Your task to perform on an android device: open app "Firefox Browser" (install if not already installed) and enter user name: "hashed@outlook.com" and password: "congestive" Image 0: 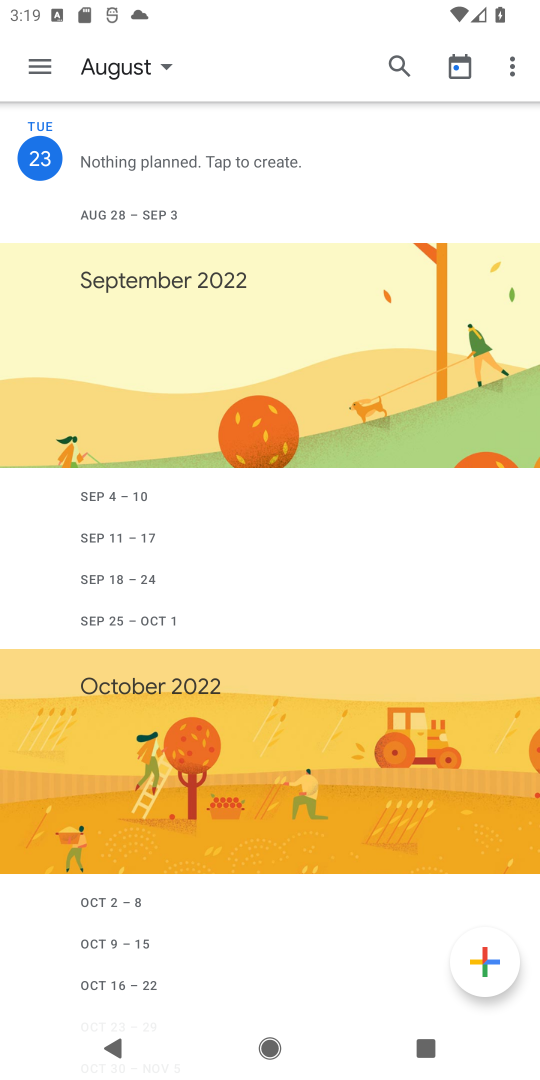
Step 0: press home button
Your task to perform on an android device: open app "Firefox Browser" (install if not already installed) and enter user name: "hashed@outlook.com" and password: "congestive" Image 1: 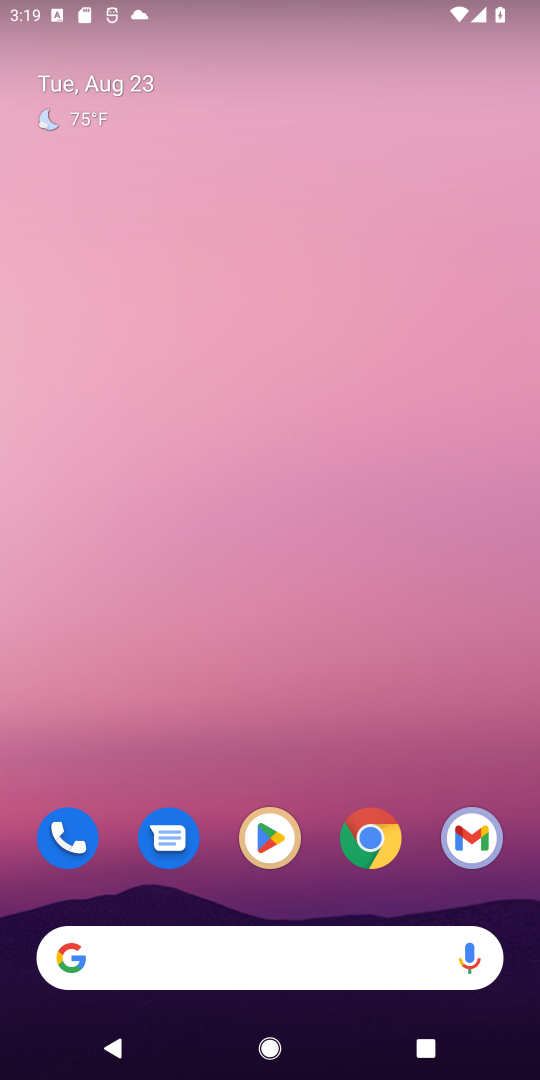
Step 1: click (262, 837)
Your task to perform on an android device: open app "Firefox Browser" (install if not already installed) and enter user name: "hashed@outlook.com" and password: "congestive" Image 2: 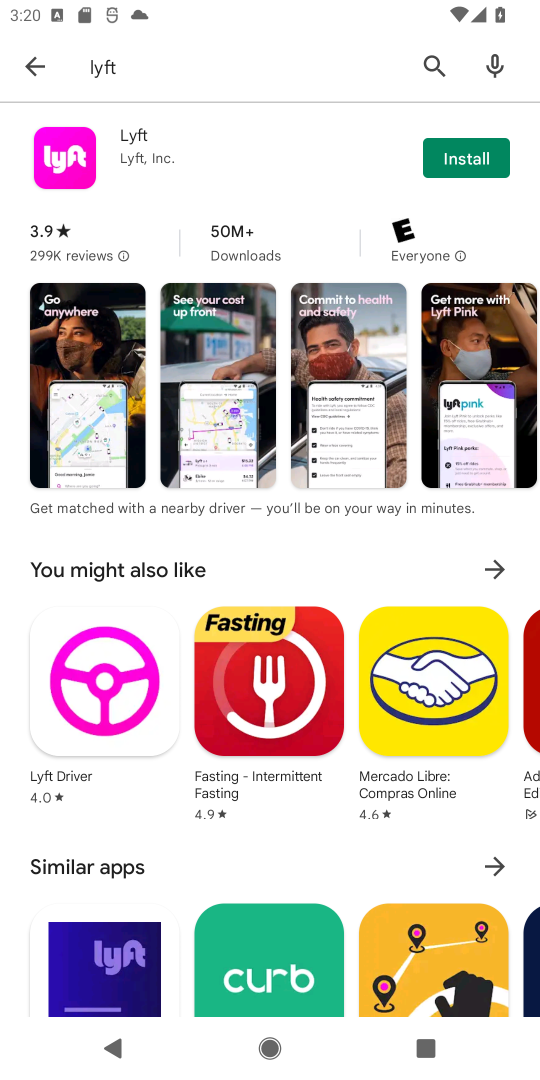
Step 2: click (38, 62)
Your task to perform on an android device: open app "Firefox Browser" (install if not already installed) and enter user name: "hashed@outlook.com" and password: "congestive" Image 3: 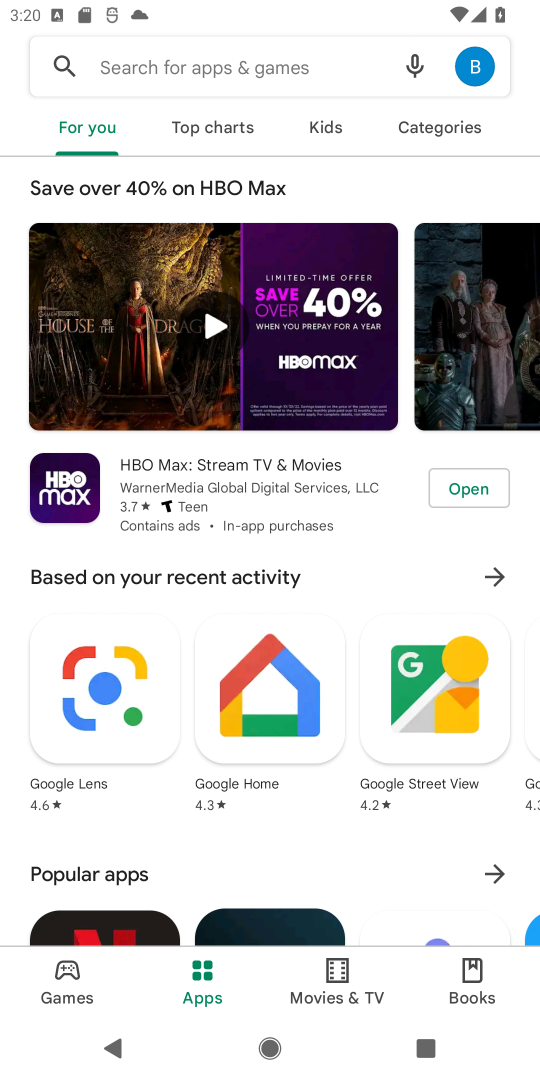
Step 3: click (251, 65)
Your task to perform on an android device: open app "Firefox Browser" (install if not already installed) and enter user name: "hashed@outlook.com" and password: "congestive" Image 4: 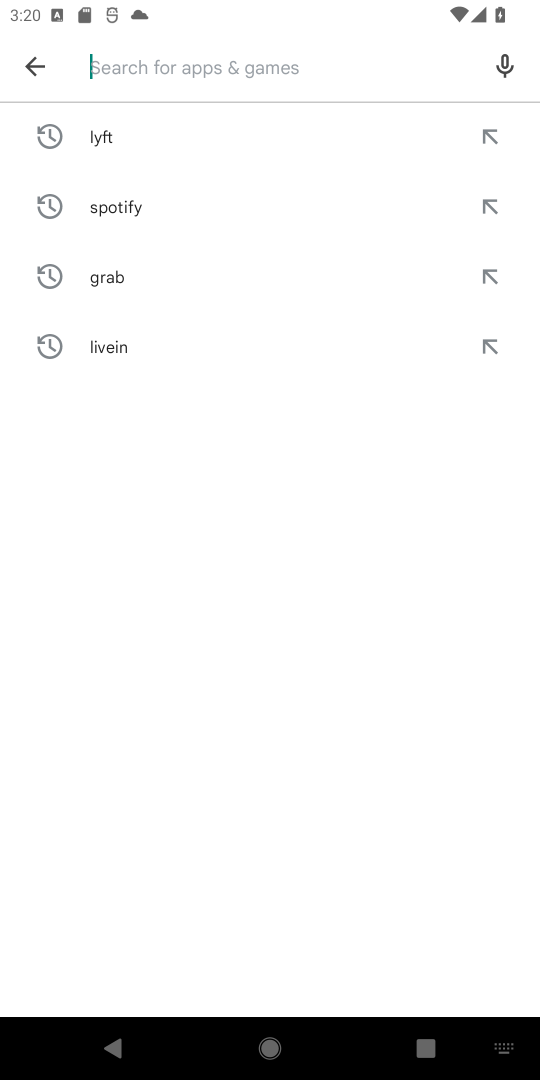
Step 4: type "Firefox Browser"
Your task to perform on an android device: open app "Firefox Browser" (install if not already installed) and enter user name: "hashed@outlook.com" and password: "congestive" Image 5: 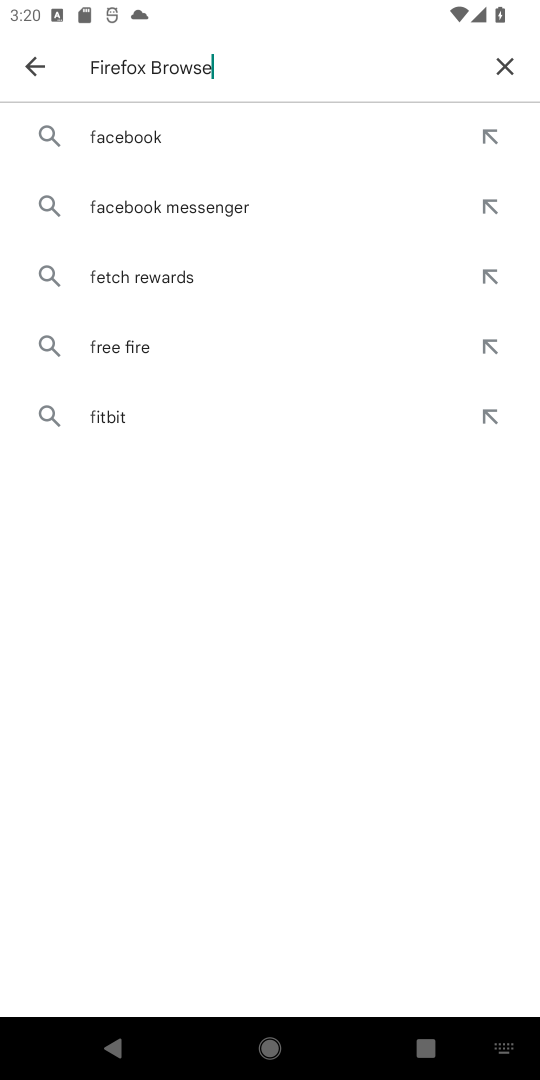
Step 5: type ""
Your task to perform on an android device: open app "Firefox Browser" (install if not already installed) and enter user name: "hashed@outlook.com" and password: "congestive" Image 6: 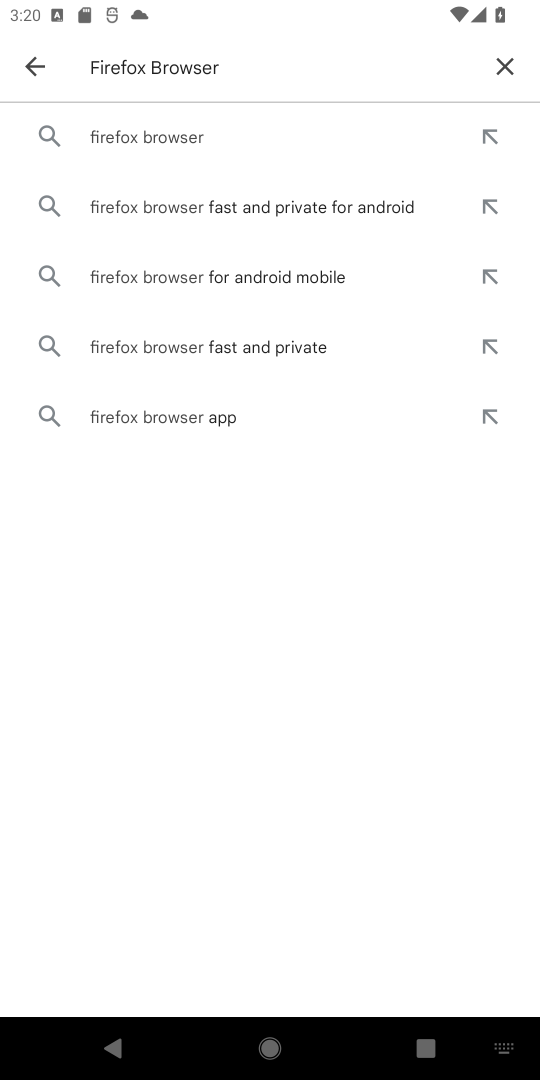
Step 6: click (94, 142)
Your task to perform on an android device: open app "Firefox Browser" (install if not already installed) and enter user name: "hashed@outlook.com" and password: "congestive" Image 7: 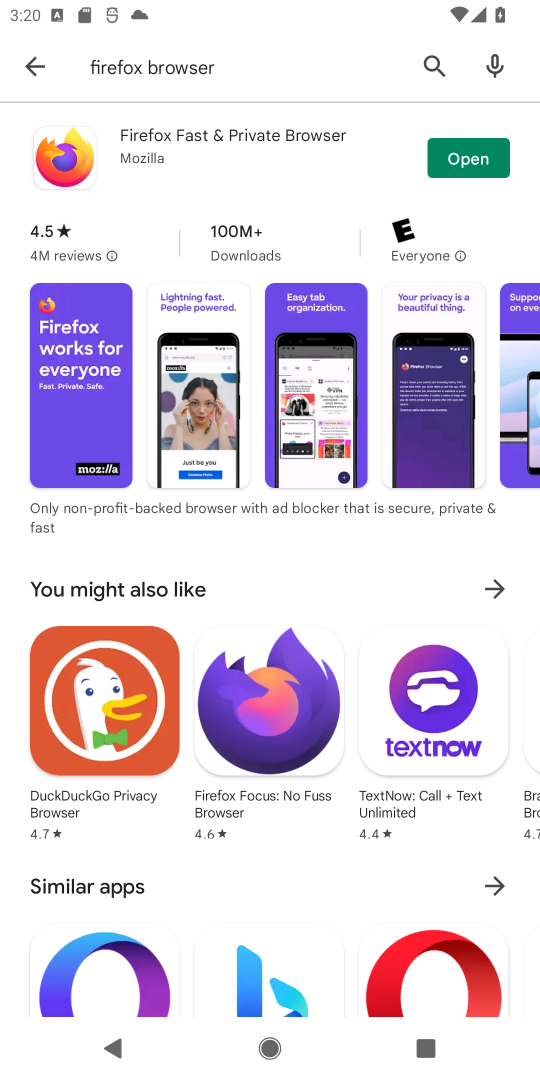
Step 7: click (472, 172)
Your task to perform on an android device: open app "Firefox Browser" (install if not already installed) and enter user name: "hashed@outlook.com" and password: "congestive" Image 8: 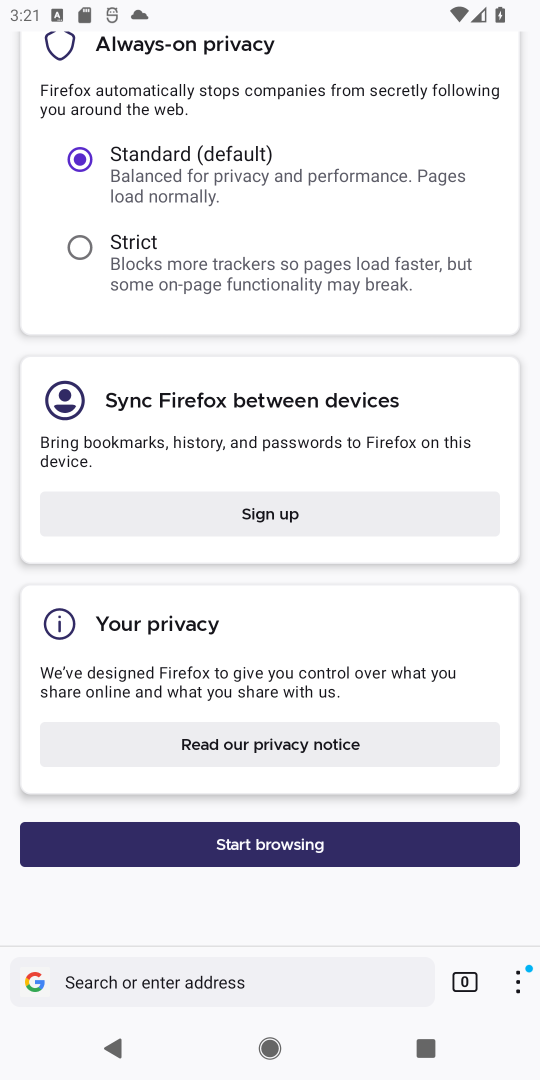
Step 8: task complete